Your task to perform on an android device: turn off notifications settings in the gmail app Image 0: 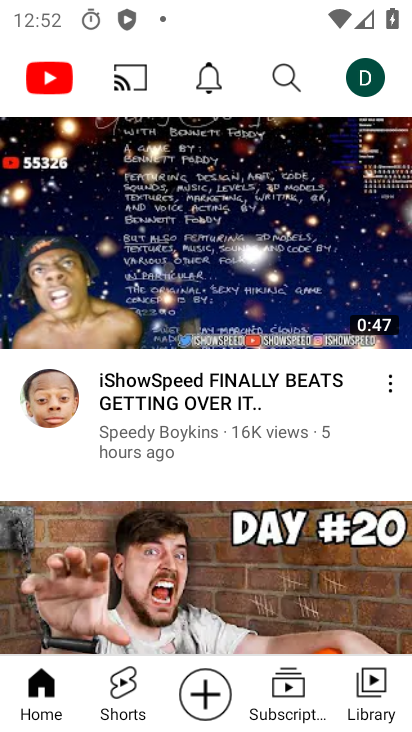
Step 0: press home button
Your task to perform on an android device: turn off notifications settings in the gmail app Image 1: 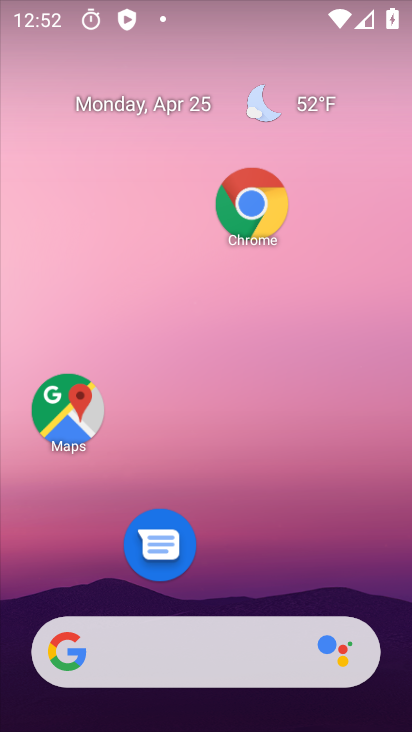
Step 1: drag from (294, 669) to (312, 122)
Your task to perform on an android device: turn off notifications settings in the gmail app Image 2: 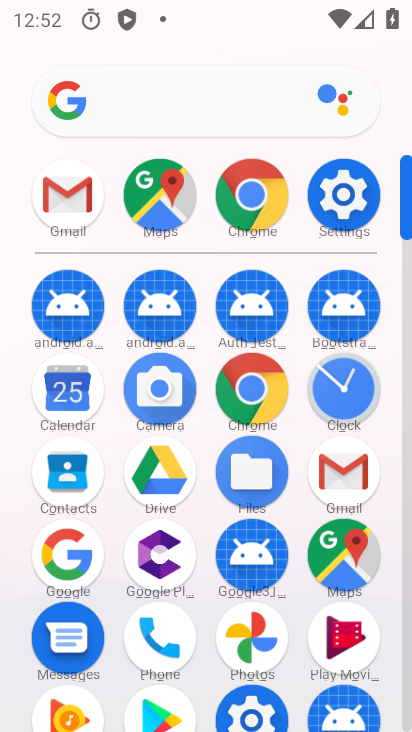
Step 2: click (334, 475)
Your task to perform on an android device: turn off notifications settings in the gmail app Image 3: 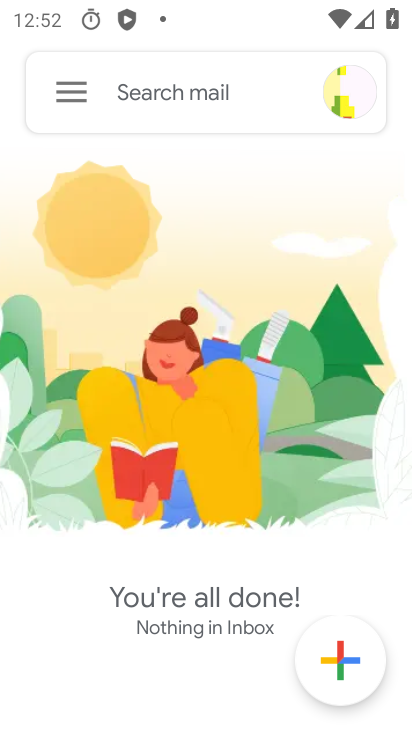
Step 3: click (56, 92)
Your task to perform on an android device: turn off notifications settings in the gmail app Image 4: 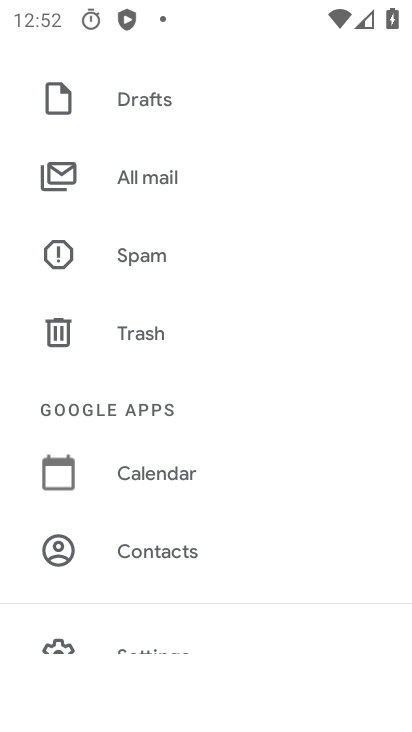
Step 4: click (137, 641)
Your task to perform on an android device: turn off notifications settings in the gmail app Image 5: 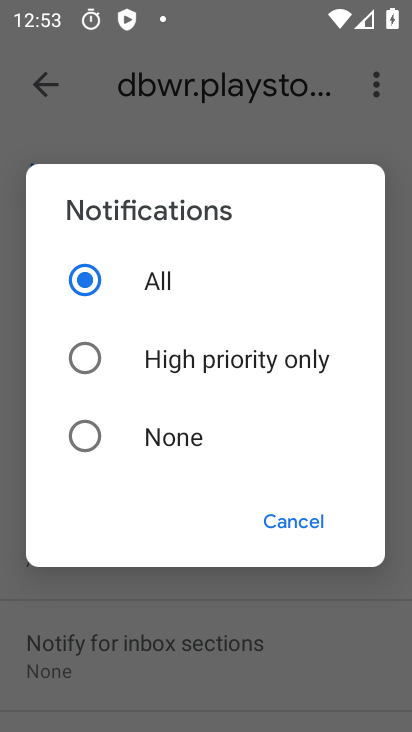
Step 5: click (270, 511)
Your task to perform on an android device: turn off notifications settings in the gmail app Image 6: 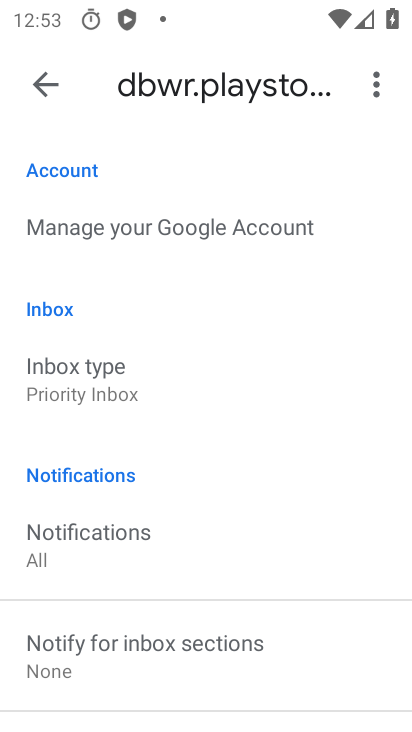
Step 6: click (137, 404)
Your task to perform on an android device: turn off notifications settings in the gmail app Image 7: 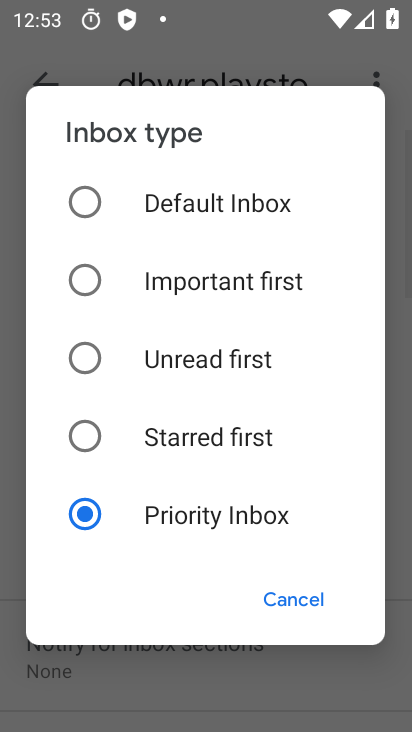
Step 7: click (287, 608)
Your task to perform on an android device: turn off notifications settings in the gmail app Image 8: 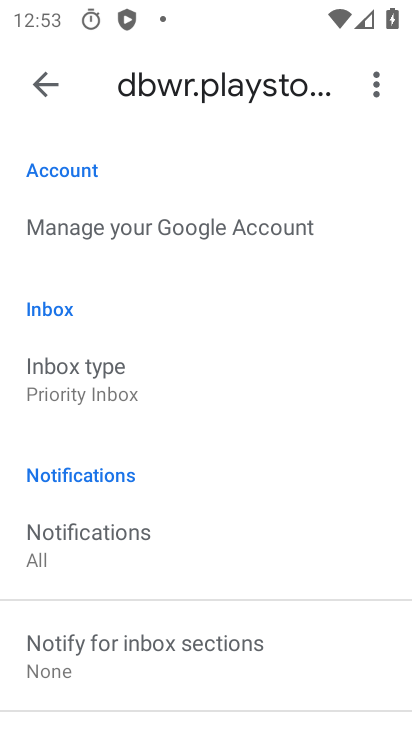
Step 8: click (132, 532)
Your task to perform on an android device: turn off notifications settings in the gmail app Image 9: 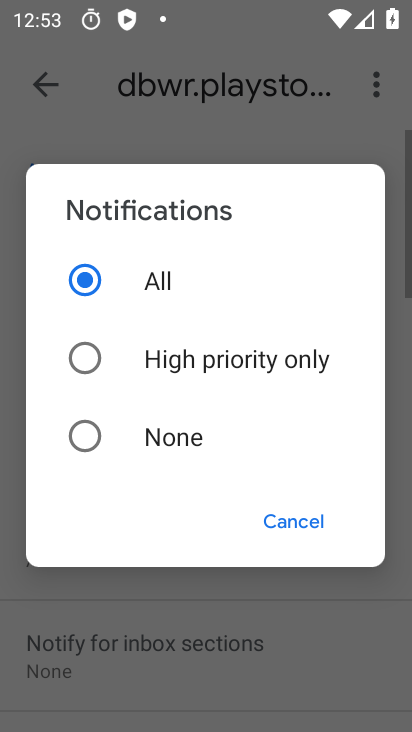
Step 9: click (167, 437)
Your task to perform on an android device: turn off notifications settings in the gmail app Image 10: 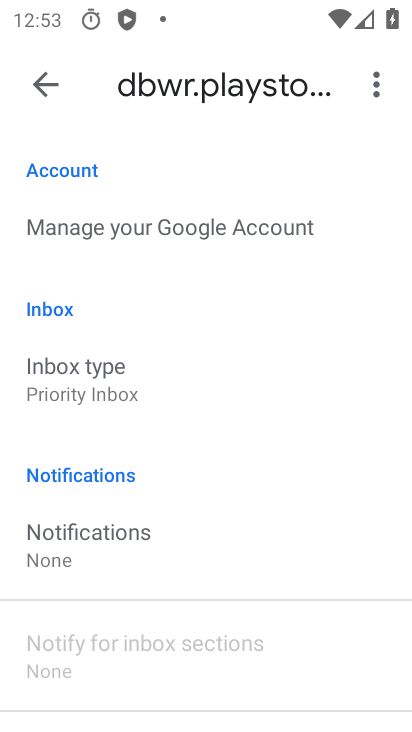
Step 10: task complete